Your task to perform on an android device: change notification settings in the gmail app Image 0: 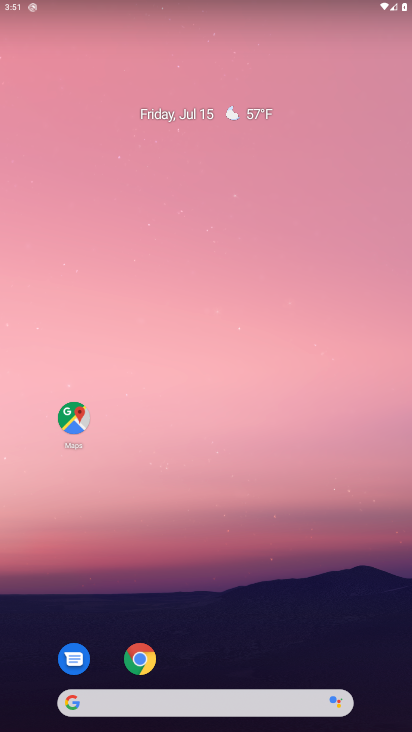
Step 0: drag from (64, 624) to (156, 161)
Your task to perform on an android device: change notification settings in the gmail app Image 1: 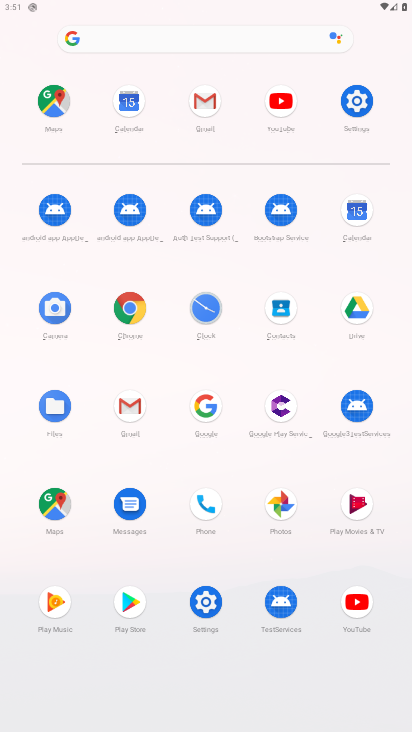
Step 1: click (216, 604)
Your task to perform on an android device: change notification settings in the gmail app Image 2: 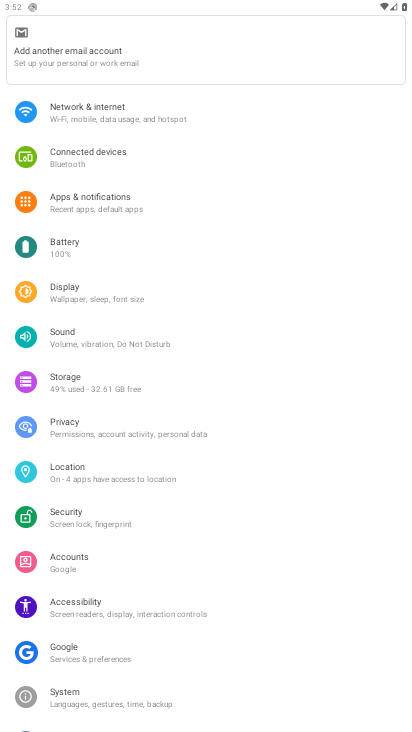
Step 2: task complete